Your task to perform on an android device: Go to network settings Image 0: 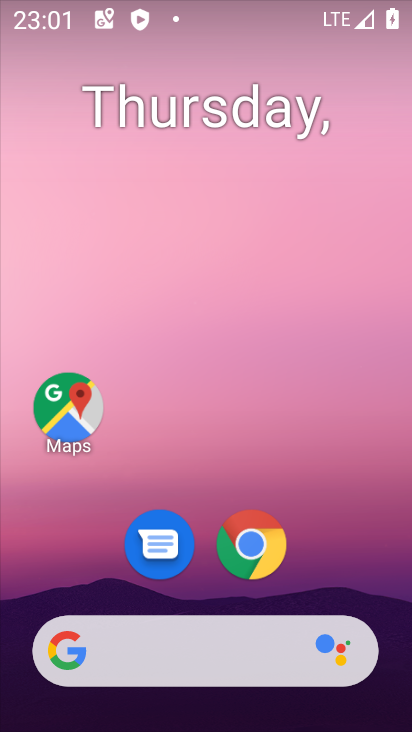
Step 0: drag from (327, 570) to (262, 164)
Your task to perform on an android device: Go to network settings Image 1: 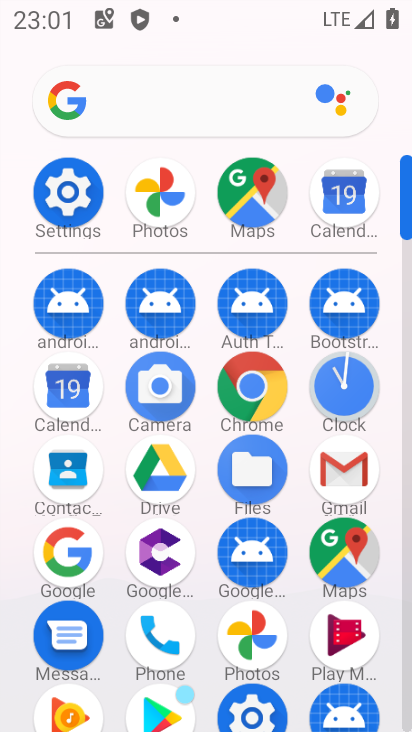
Step 1: click (69, 205)
Your task to perform on an android device: Go to network settings Image 2: 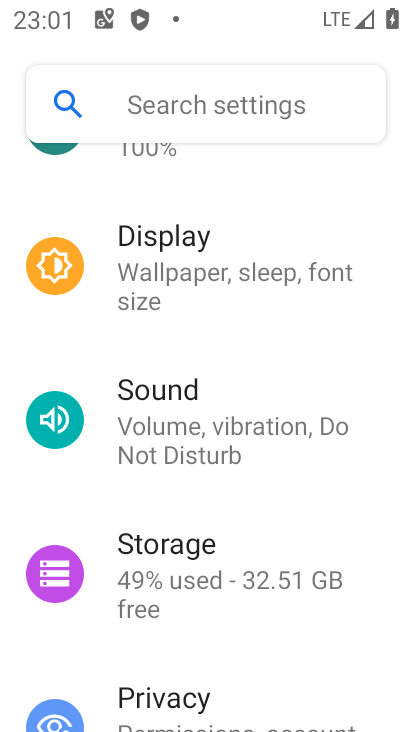
Step 2: drag from (167, 206) to (190, 725)
Your task to perform on an android device: Go to network settings Image 3: 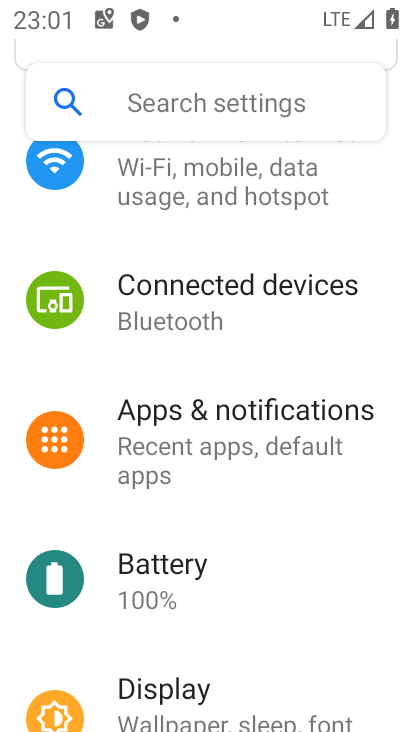
Step 3: drag from (165, 254) to (160, 579)
Your task to perform on an android device: Go to network settings Image 4: 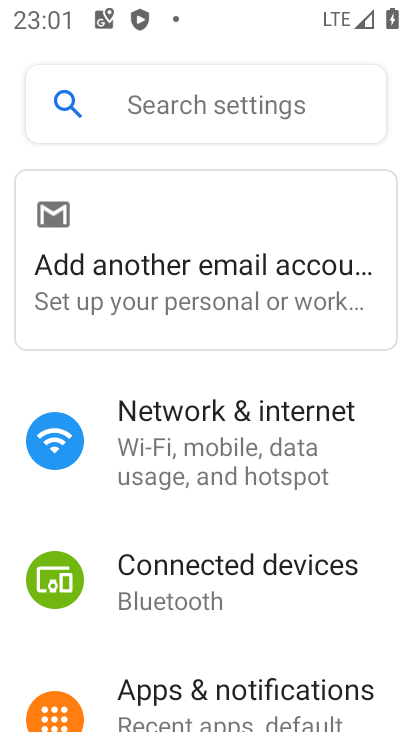
Step 4: click (161, 448)
Your task to perform on an android device: Go to network settings Image 5: 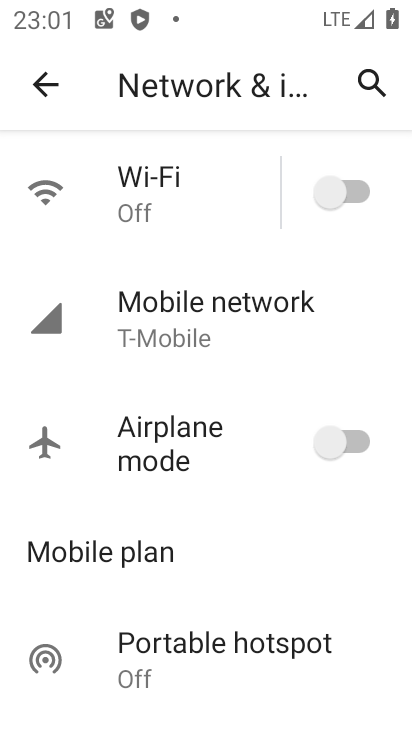
Step 5: click (174, 308)
Your task to perform on an android device: Go to network settings Image 6: 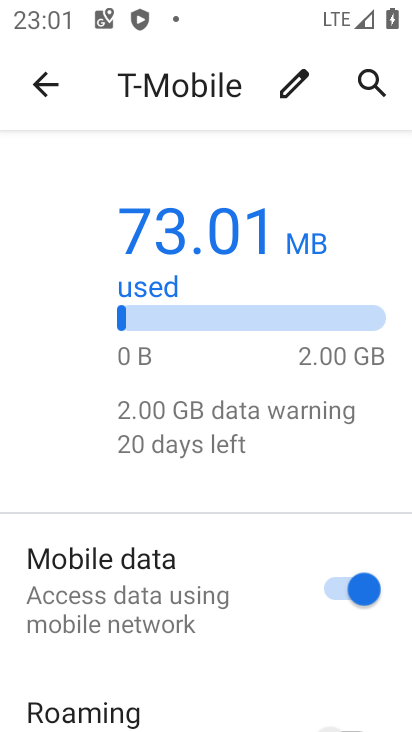
Step 6: drag from (151, 689) to (178, 343)
Your task to perform on an android device: Go to network settings Image 7: 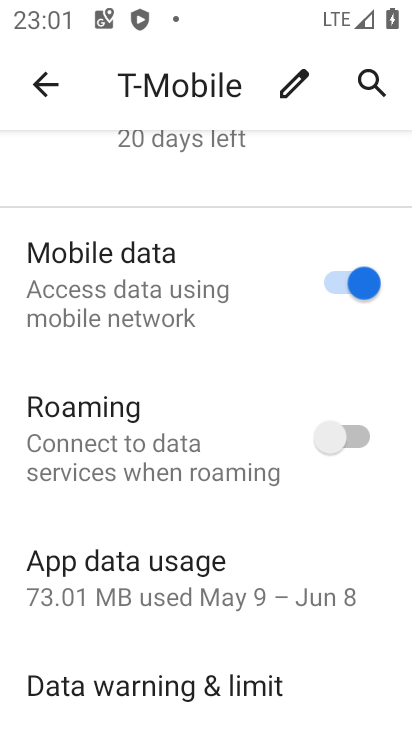
Step 7: drag from (136, 665) to (157, 299)
Your task to perform on an android device: Go to network settings Image 8: 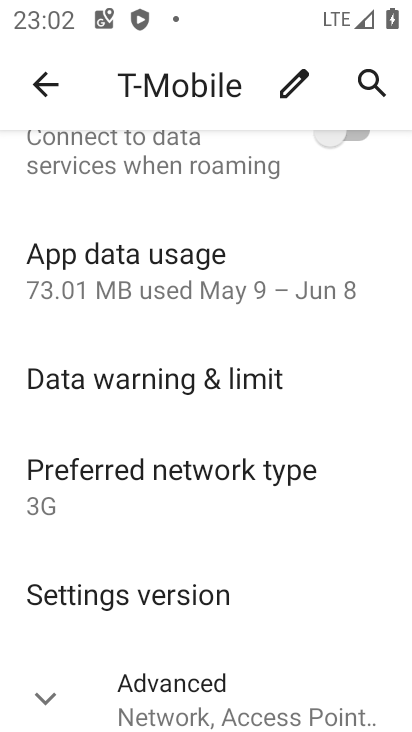
Step 8: click (138, 687)
Your task to perform on an android device: Go to network settings Image 9: 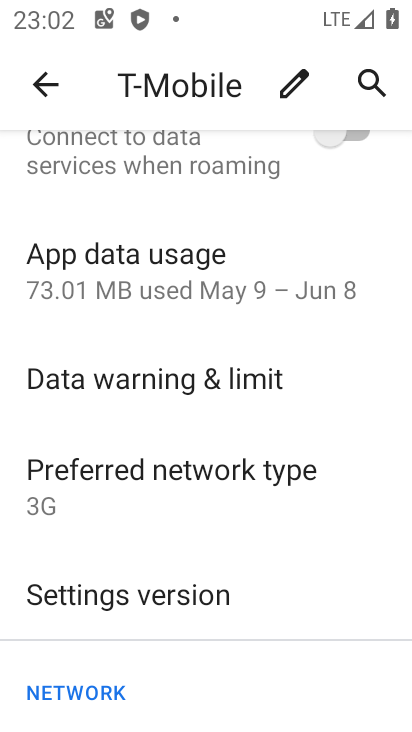
Step 9: task complete